Your task to perform on an android device: Do I have any events tomorrow? Image 0: 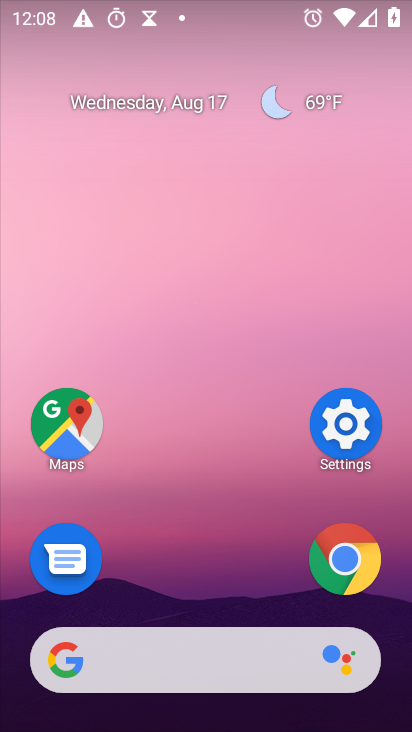
Step 0: drag from (182, 624) to (301, 209)
Your task to perform on an android device: Do I have any events tomorrow? Image 1: 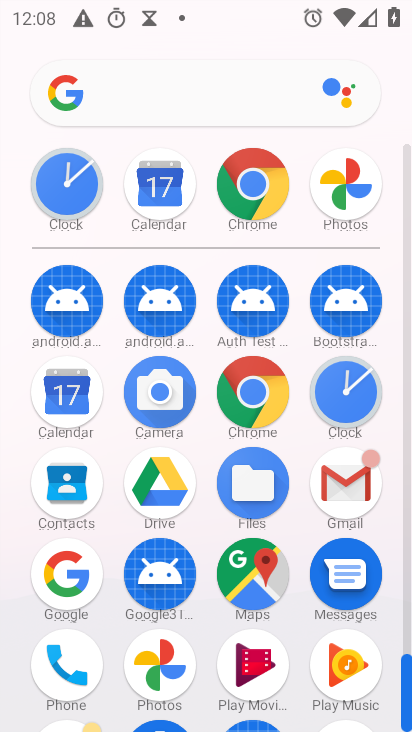
Step 1: click (149, 191)
Your task to perform on an android device: Do I have any events tomorrow? Image 2: 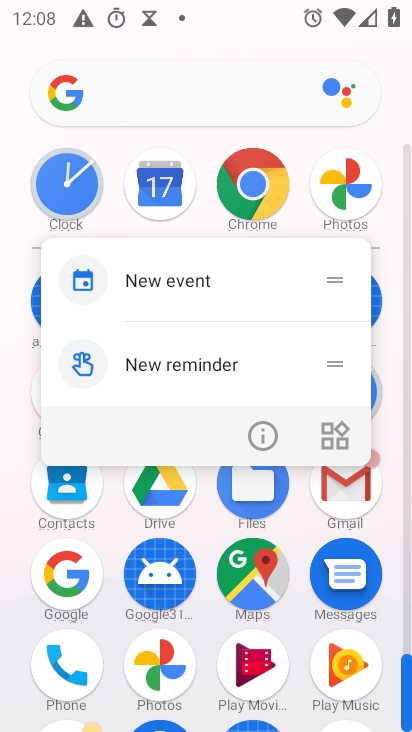
Step 2: click (149, 190)
Your task to perform on an android device: Do I have any events tomorrow? Image 3: 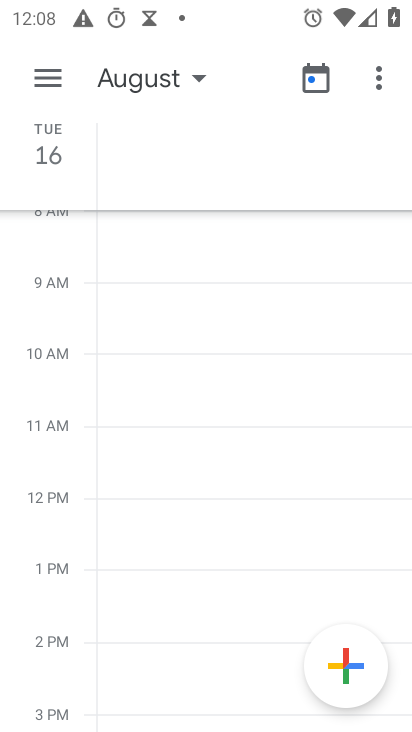
Step 3: click (145, 80)
Your task to perform on an android device: Do I have any events tomorrow? Image 4: 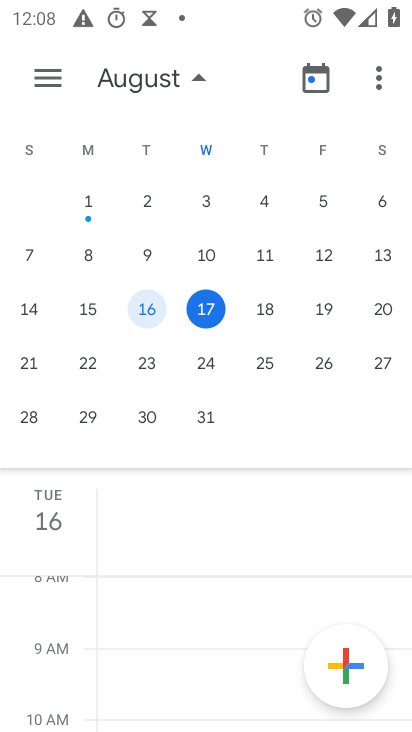
Step 4: click (266, 313)
Your task to perform on an android device: Do I have any events tomorrow? Image 5: 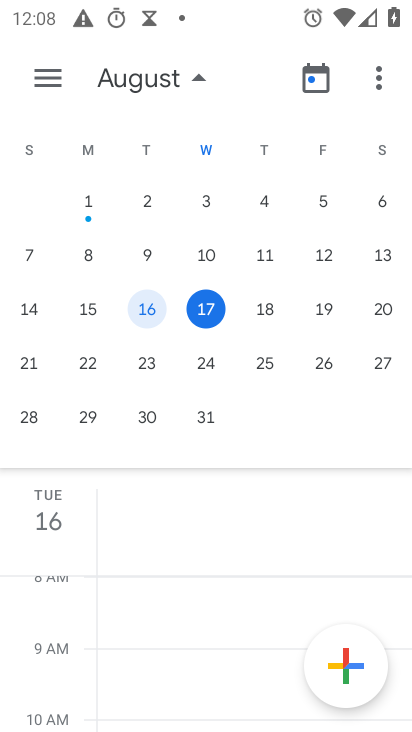
Step 5: click (269, 307)
Your task to perform on an android device: Do I have any events tomorrow? Image 6: 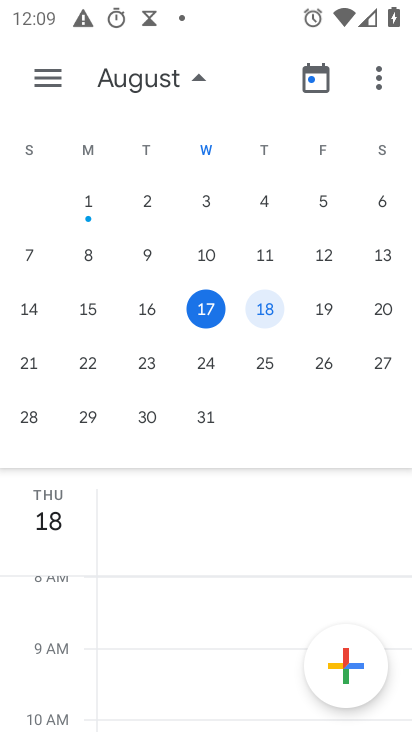
Step 6: click (45, 74)
Your task to perform on an android device: Do I have any events tomorrow? Image 7: 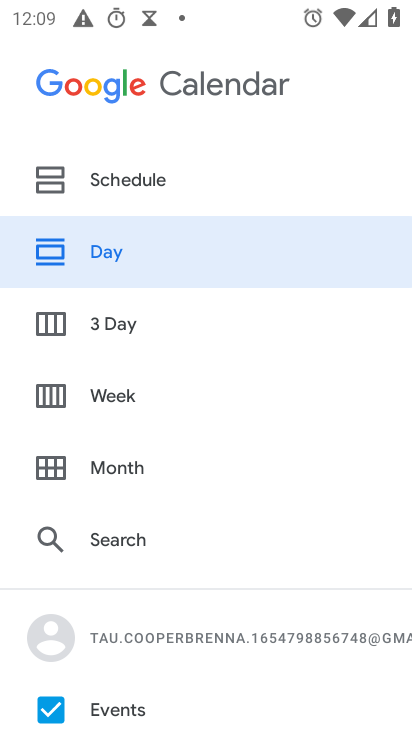
Step 7: click (129, 178)
Your task to perform on an android device: Do I have any events tomorrow? Image 8: 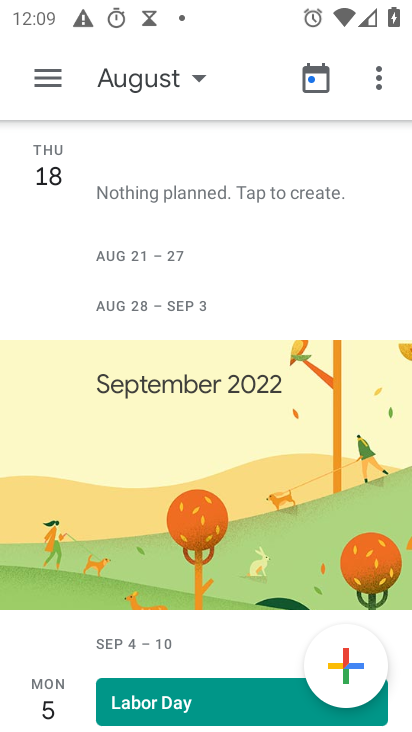
Step 8: task complete